Your task to perform on an android device: empty trash in the gmail app Image 0: 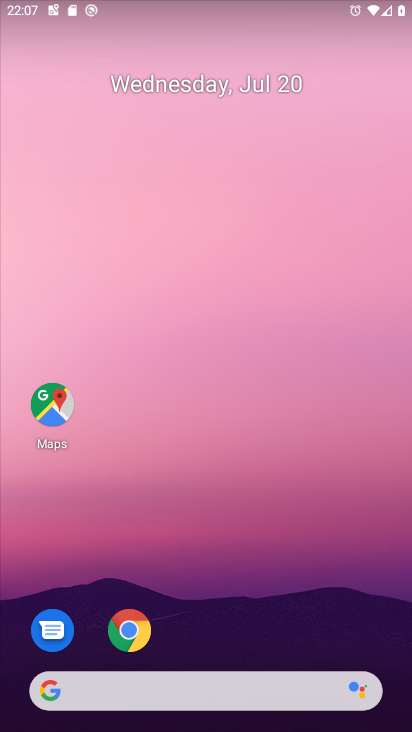
Step 0: drag from (200, 677) to (259, 25)
Your task to perform on an android device: empty trash in the gmail app Image 1: 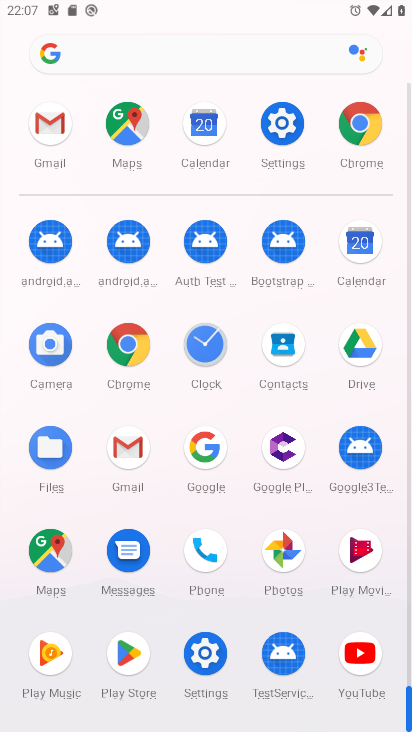
Step 1: click (137, 458)
Your task to perform on an android device: empty trash in the gmail app Image 2: 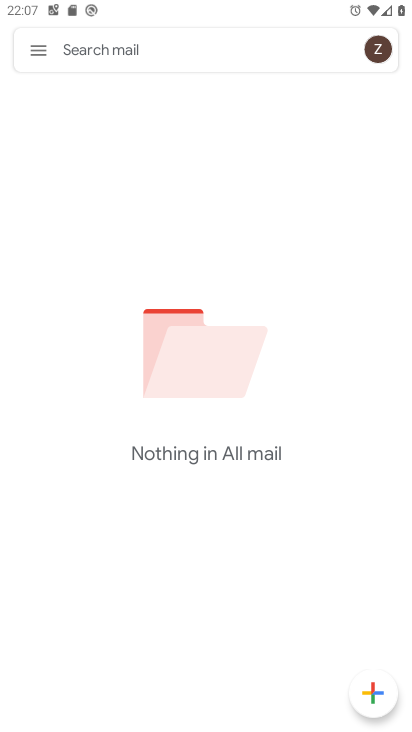
Step 2: click (30, 53)
Your task to perform on an android device: empty trash in the gmail app Image 3: 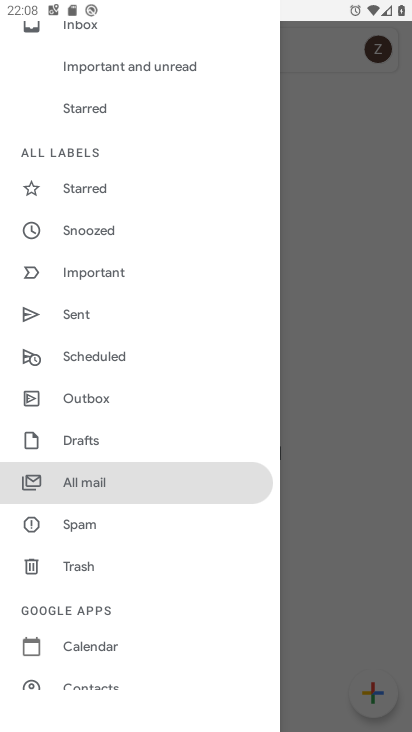
Step 3: click (109, 568)
Your task to perform on an android device: empty trash in the gmail app Image 4: 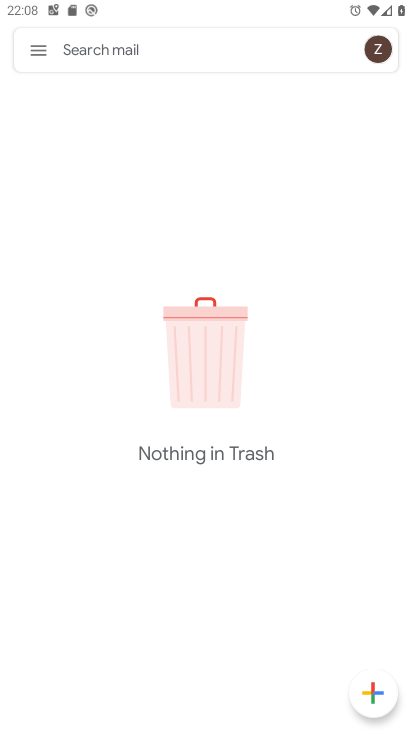
Step 4: task complete